Your task to perform on an android device: turn off data saver in the chrome app Image 0: 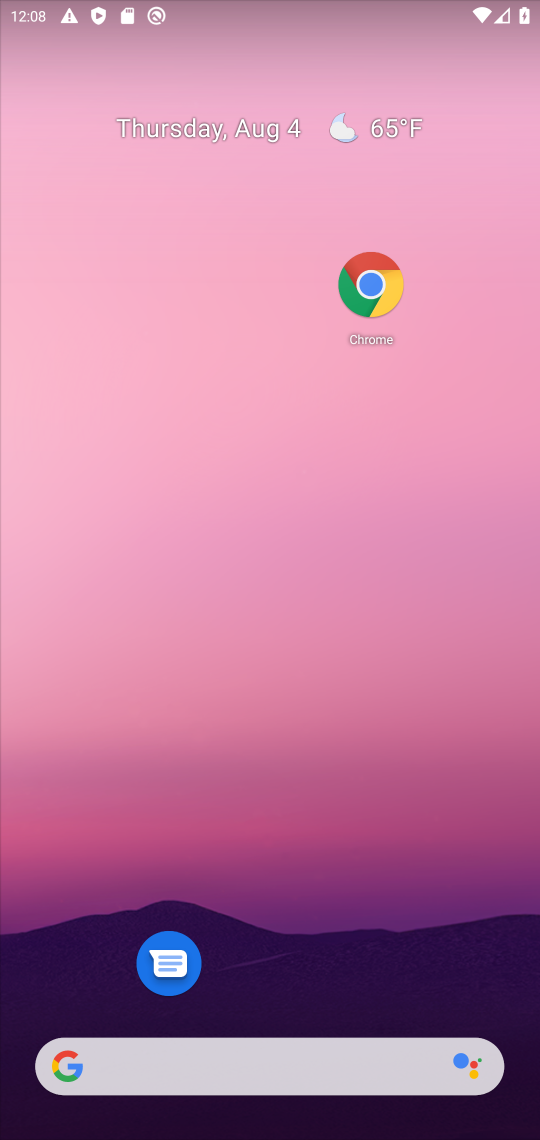
Step 0: drag from (343, 947) to (279, 193)
Your task to perform on an android device: turn off data saver in the chrome app Image 1: 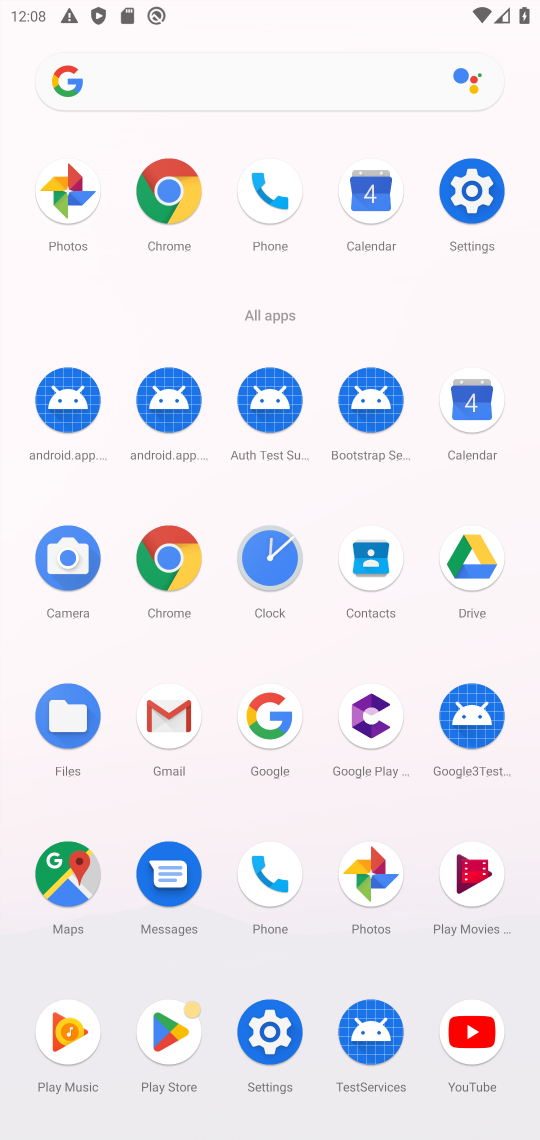
Step 1: click (163, 553)
Your task to perform on an android device: turn off data saver in the chrome app Image 2: 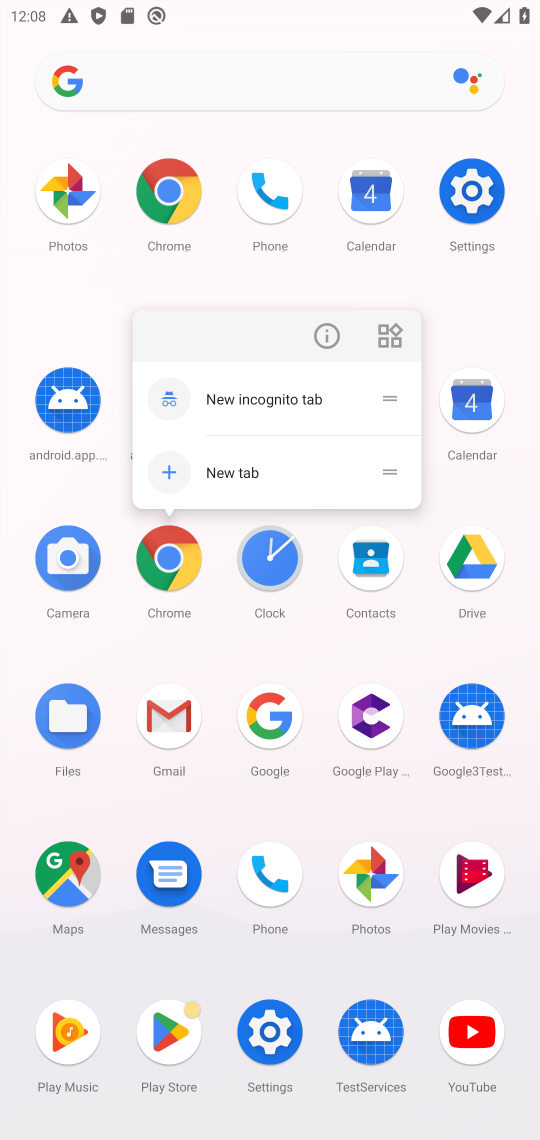
Step 2: click (159, 561)
Your task to perform on an android device: turn off data saver in the chrome app Image 3: 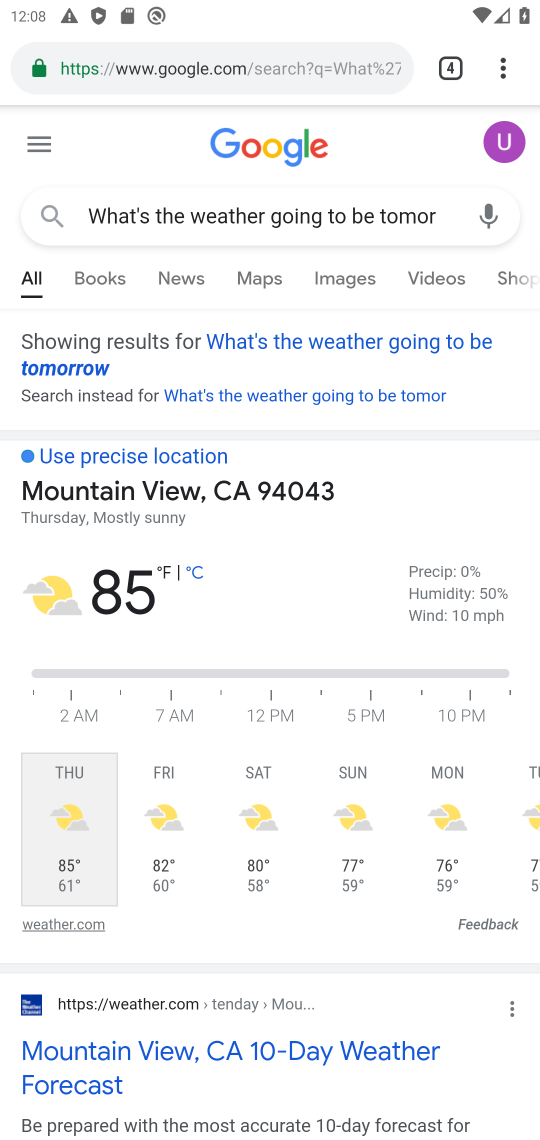
Step 3: click (513, 64)
Your task to perform on an android device: turn off data saver in the chrome app Image 4: 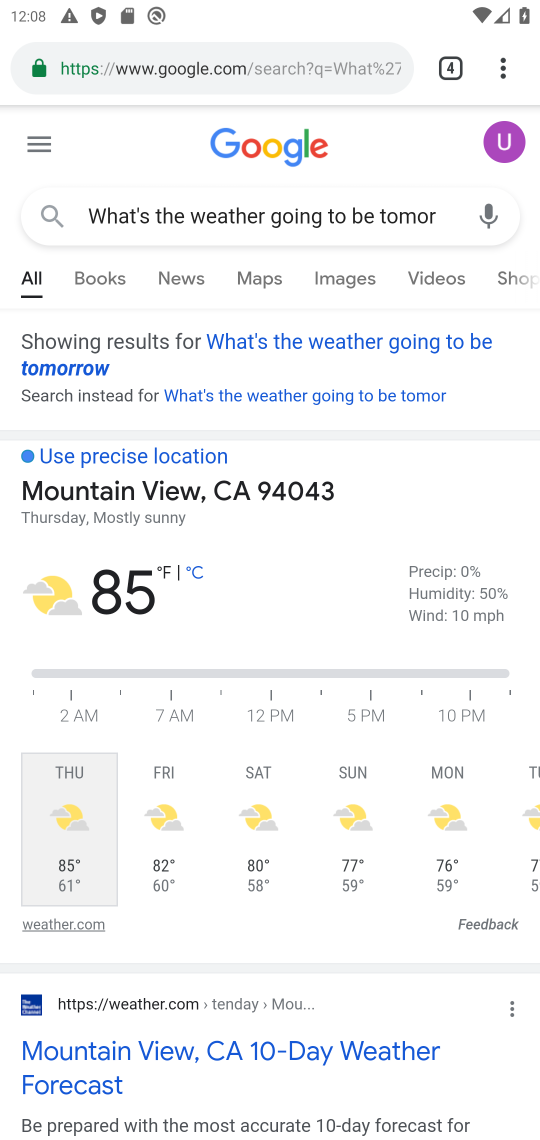
Step 4: click (491, 61)
Your task to perform on an android device: turn off data saver in the chrome app Image 5: 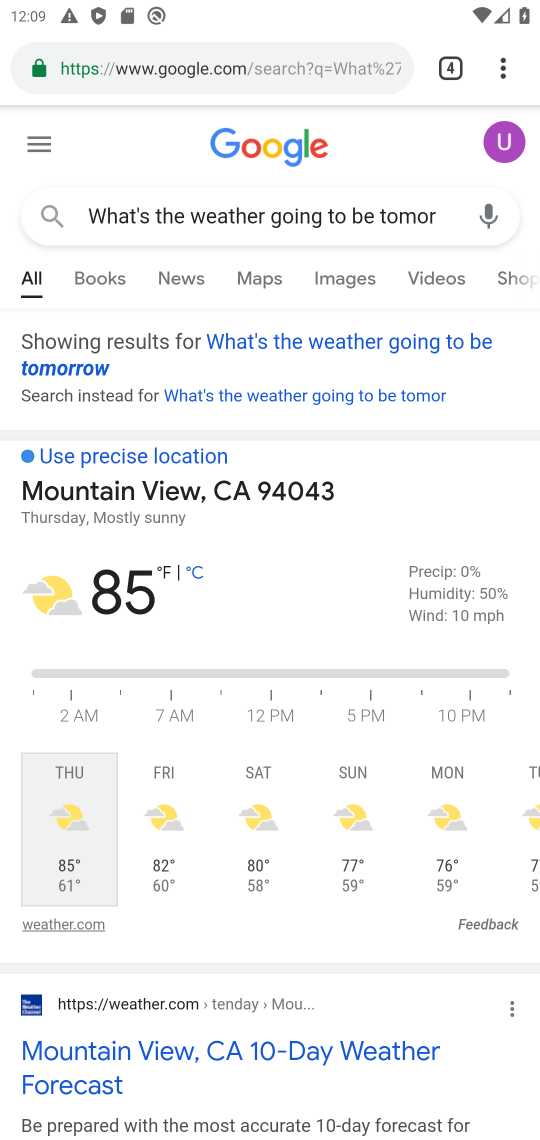
Step 5: click (491, 61)
Your task to perform on an android device: turn off data saver in the chrome app Image 6: 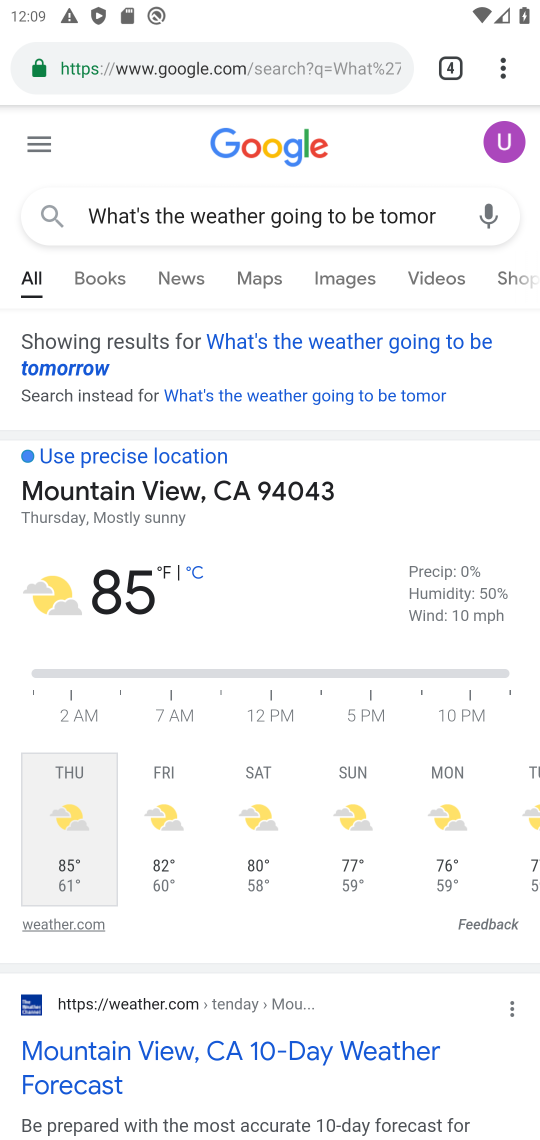
Step 6: click (466, 58)
Your task to perform on an android device: turn off data saver in the chrome app Image 7: 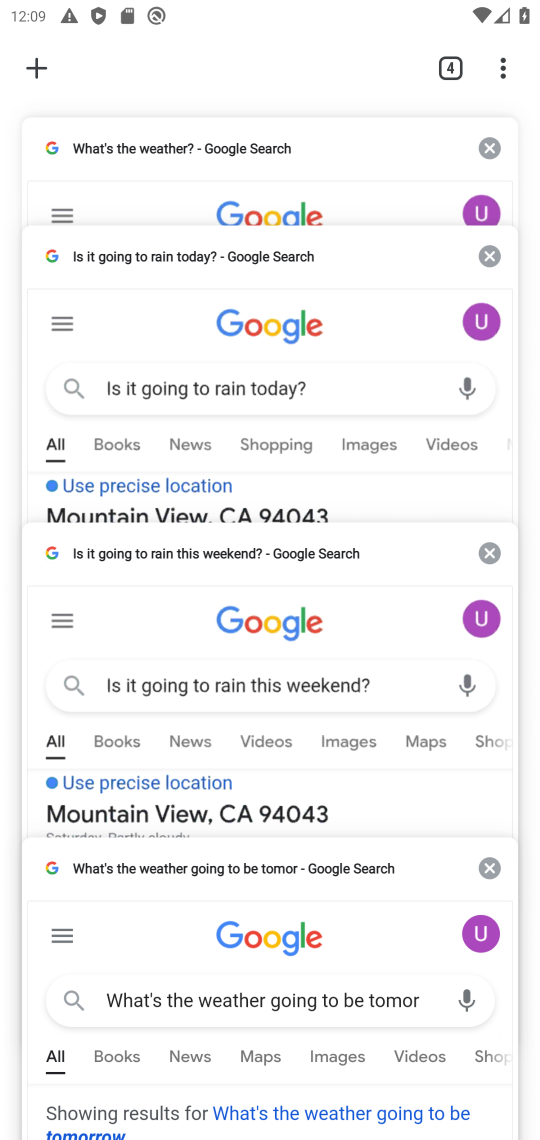
Step 7: click (488, 73)
Your task to perform on an android device: turn off data saver in the chrome app Image 8: 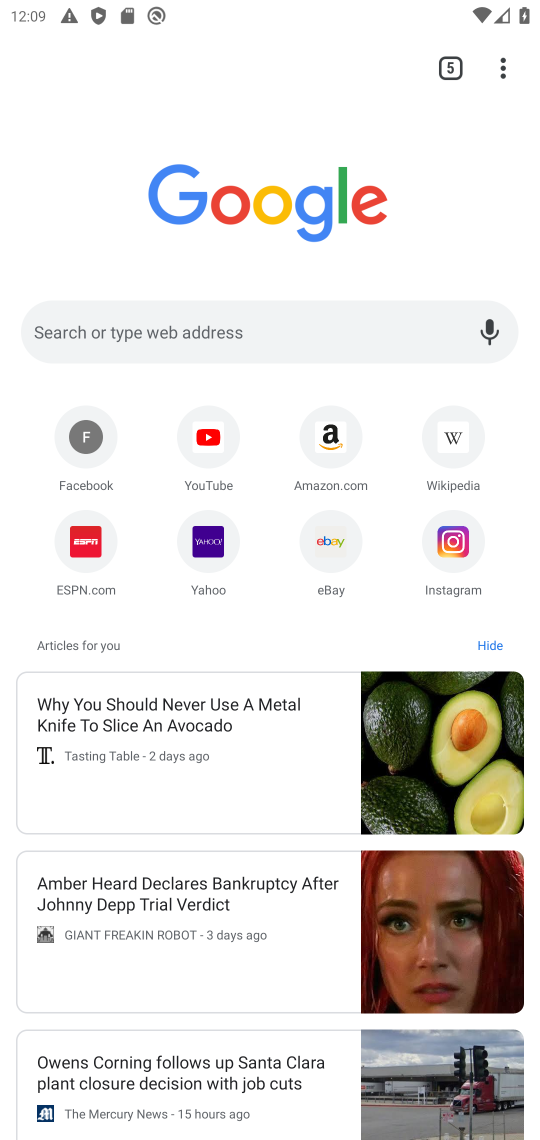
Step 8: click (505, 72)
Your task to perform on an android device: turn off data saver in the chrome app Image 9: 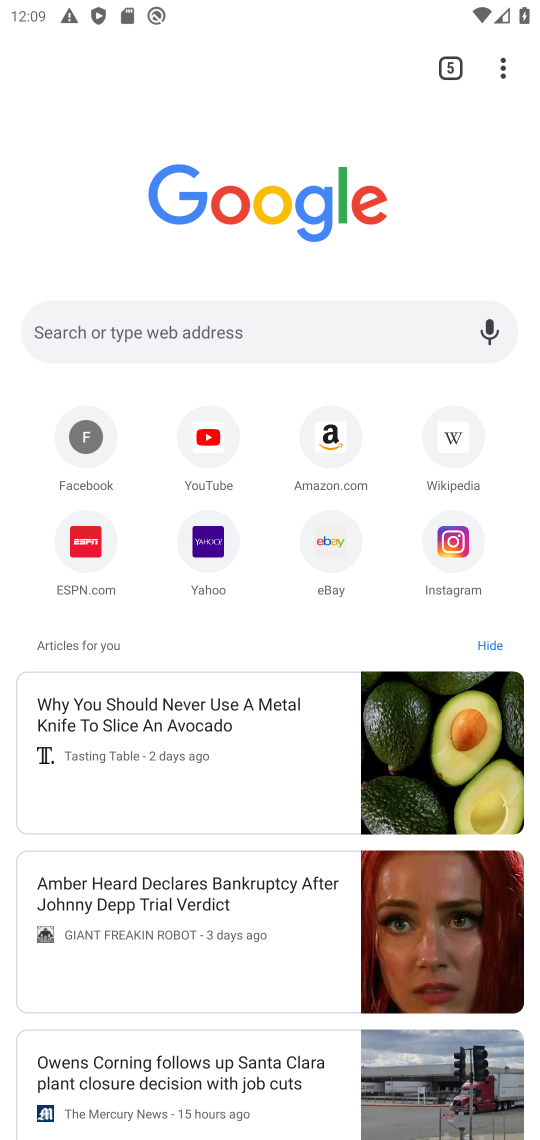
Step 9: click (505, 72)
Your task to perform on an android device: turn off data saver in the chrome app Image 10: 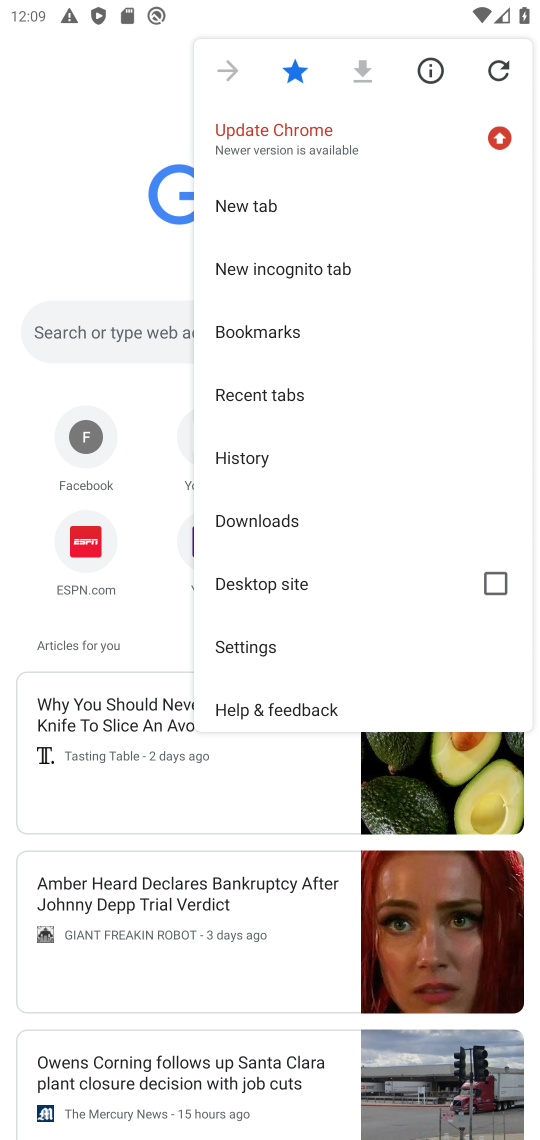
Step 10: click (219, 647)
Your task to perform on an android device: turn off data saver in the chrome app Image 11: 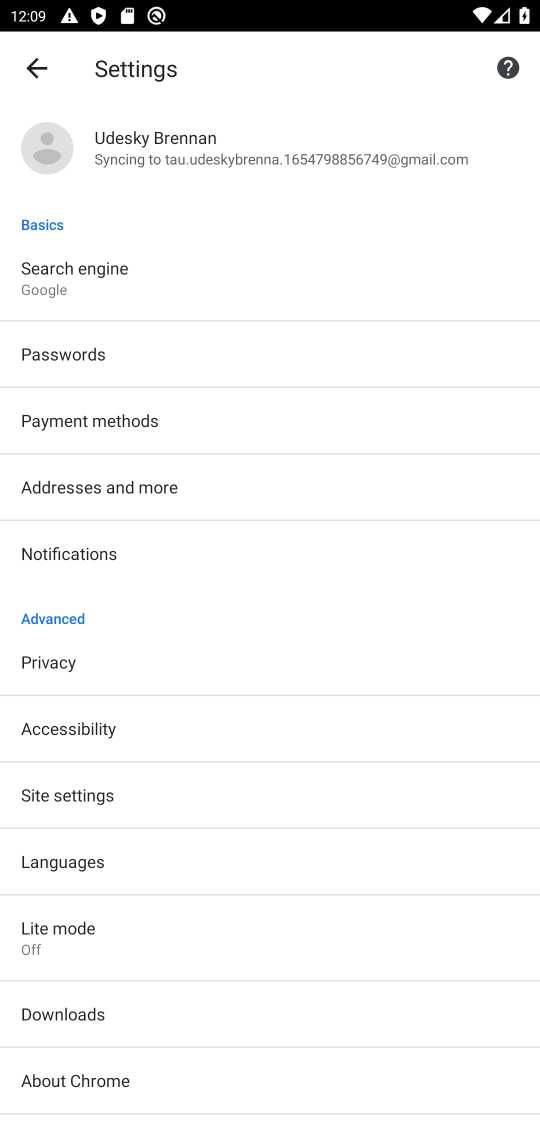
Step 11: click (133, 953)
Your task to perform on an android device: turn off data saver in the chrome app Image 12: 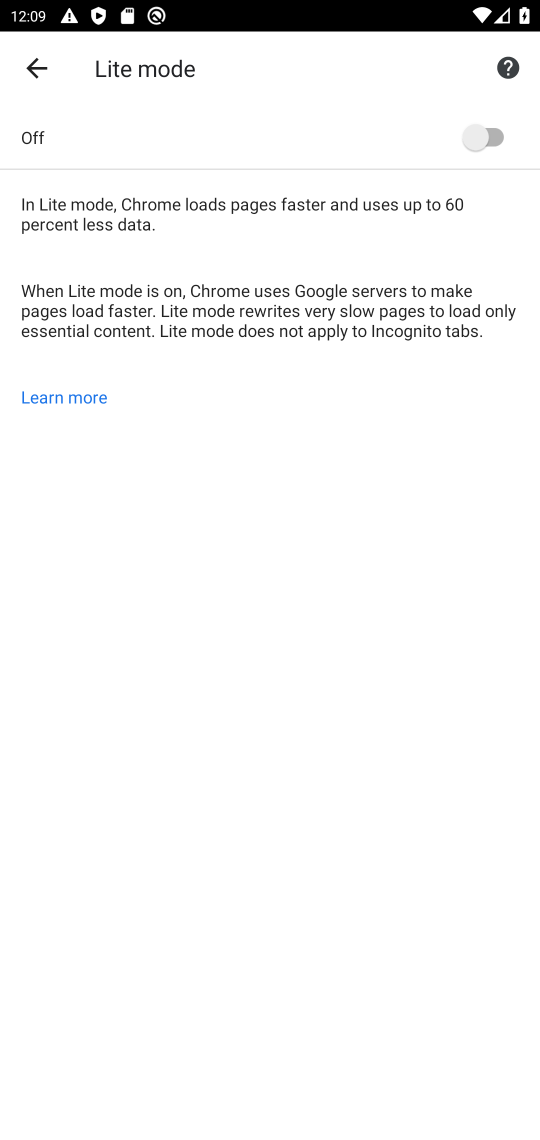
Step 12: task complete